Your task to perform on an android device: Go to network settings Image 0: 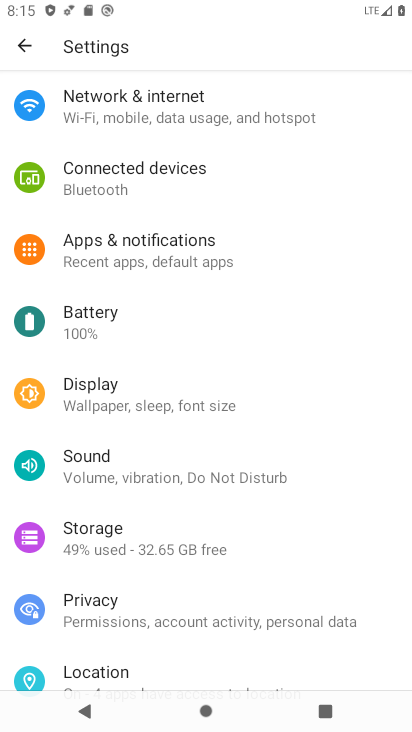
Step 0: click (267, 114)
Your task to perform on an android device: Go to network settings Image 1: 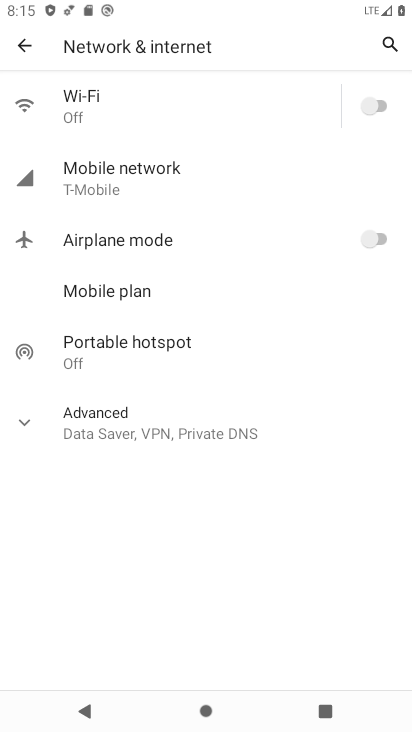
Step 1: click (183, 175)
Your task to perform on an android device: Go to network settings Image 2: 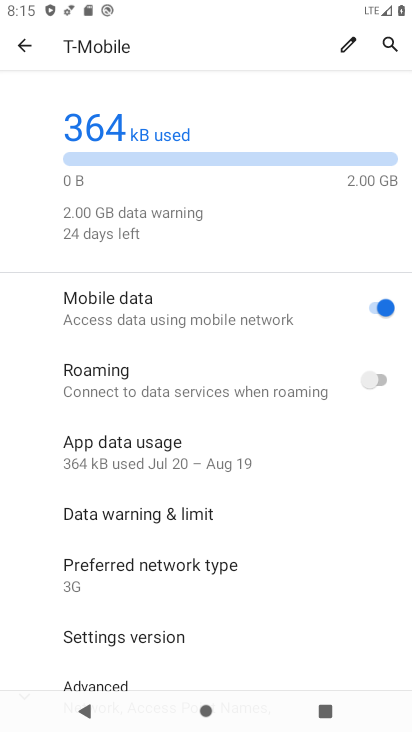
Step 2: task complete